Your task to perform on an android device: open sync settings in chrome Image 0: 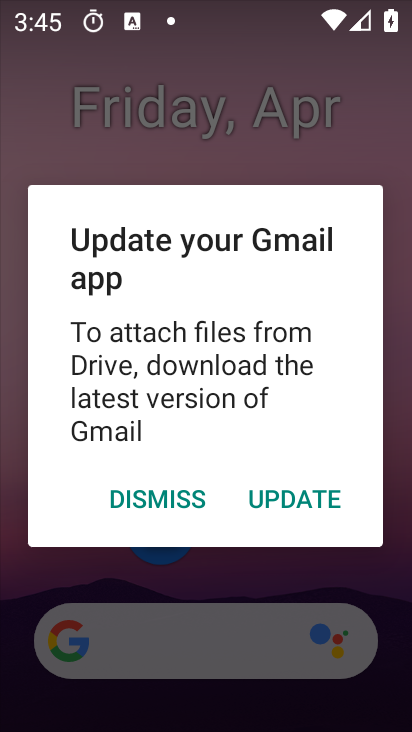
Step 0: click (171, 503)
Your task to perform on an android device: open sync settings in chrome Image 1: 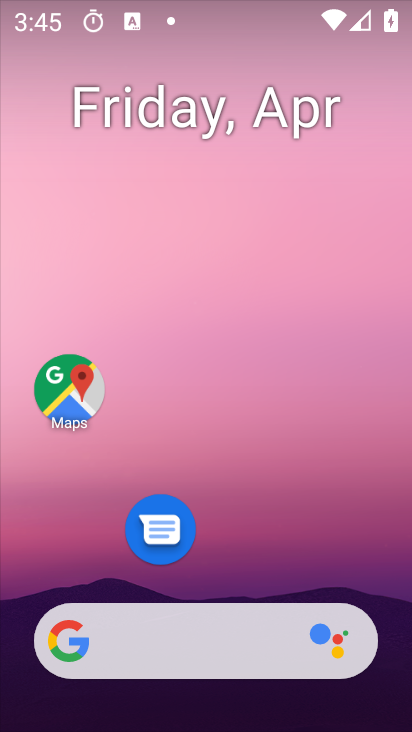
Step 1: drag from (260, 607) to (290, 219)
Your task to perform on an android device: open sync settings in chrome Image 2: 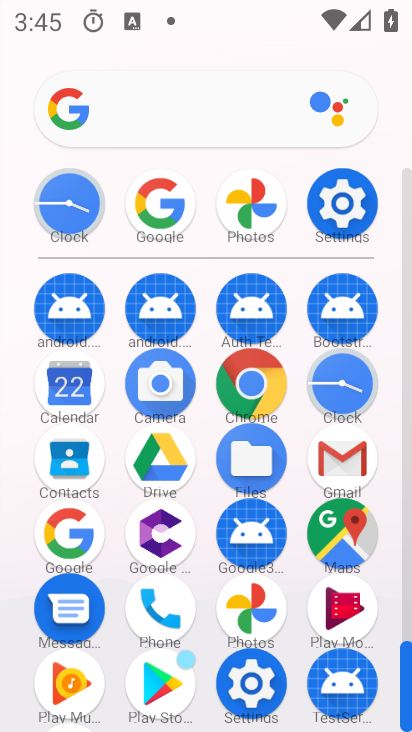
Step 2: click (343, 227)
Your task to perform on an android device: open sync settings in chrome Image 3: 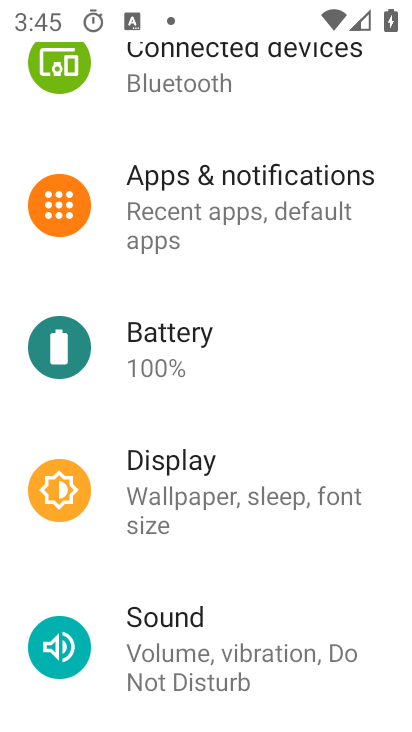
Step 3: press home button
Your task to perform on an android device: open sync settings in chrome Image 4: 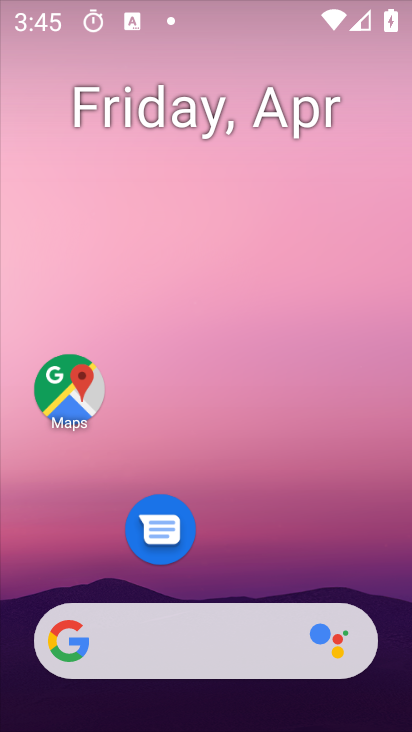
Step 4: drag from (270, 383) to (269, 144)
Your task to perform on an android device: open sync settings in chrome Image 5: 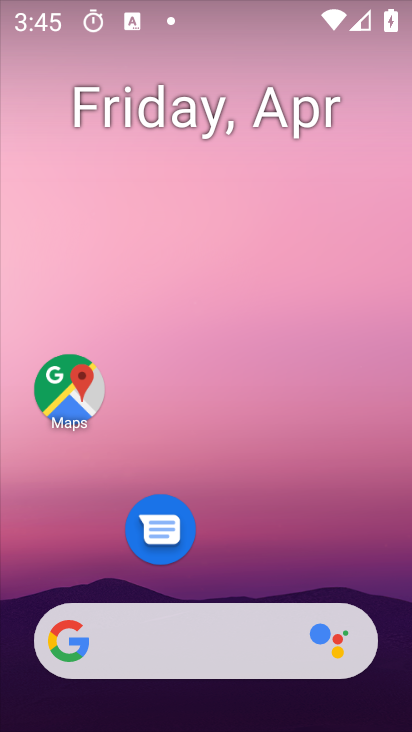
Step 5: drag from (252, 583) to (317, 132)
Your task to perform on an android device: open sync settings in chrome Image 6: 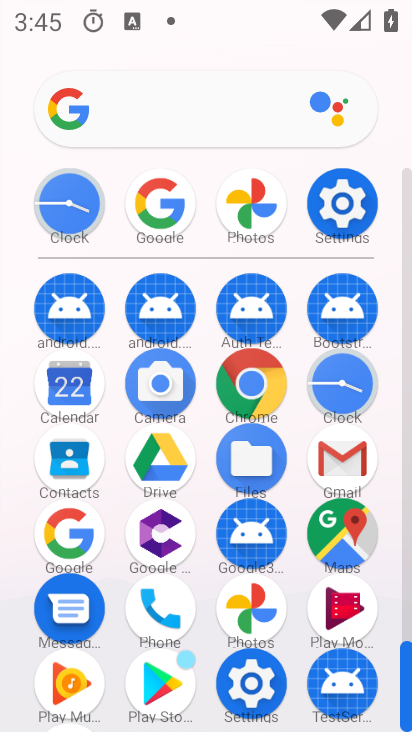
Step 6: drag from (318, 533) to (357, 243)
Your task to perform on an android device: open sync settings in chrome Image 7: 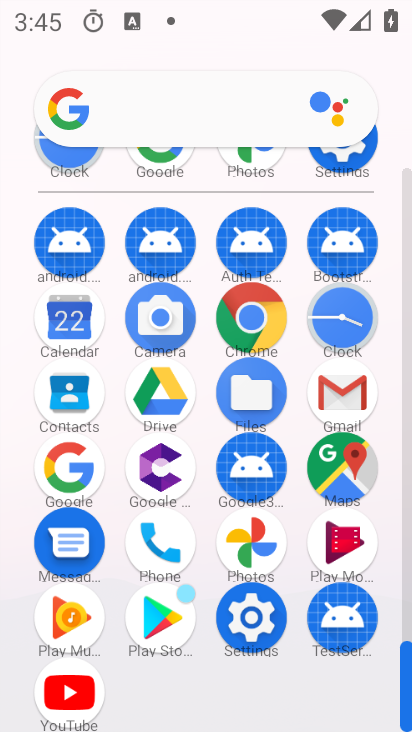
Step 7: click (267, 338)
Your task to perform on an android device: open sync settings in chrome Image 8: 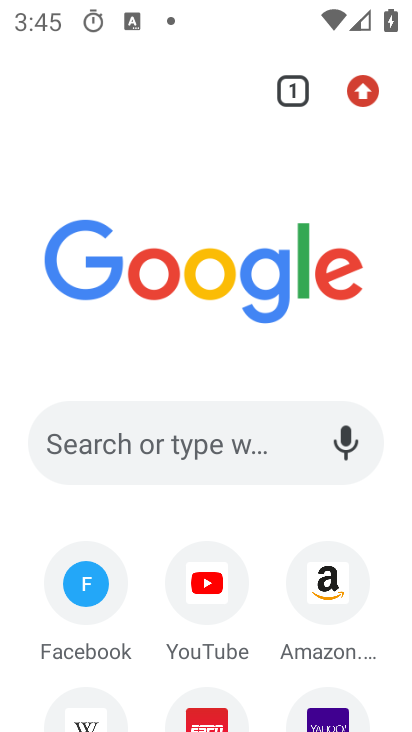
Step 8: click (365, 101)
Your task to perform on an android device: open sync settings in chrome Image 9: 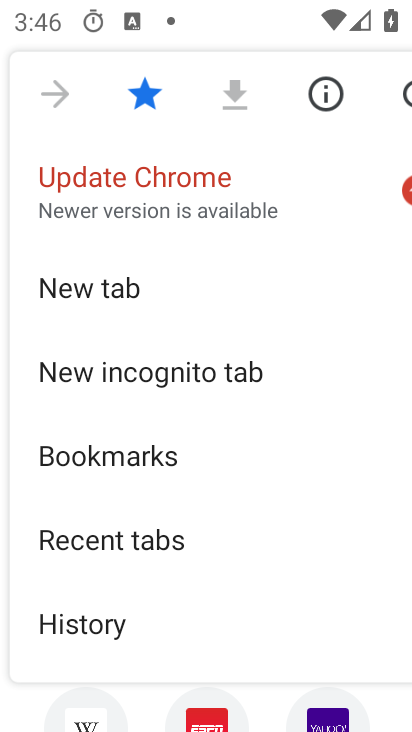
Step 9: drag from (131, 482) to (131, 399)
Your task to perform on an android device: open sync settings in chrome Image 10: 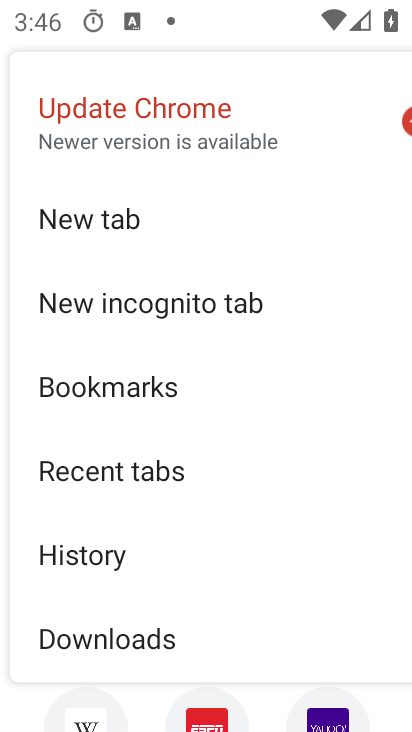
Step 10: drag from (160, 596) to (166, 419)
Your task to perform on an android device: open sync settings in chrome Image 11: 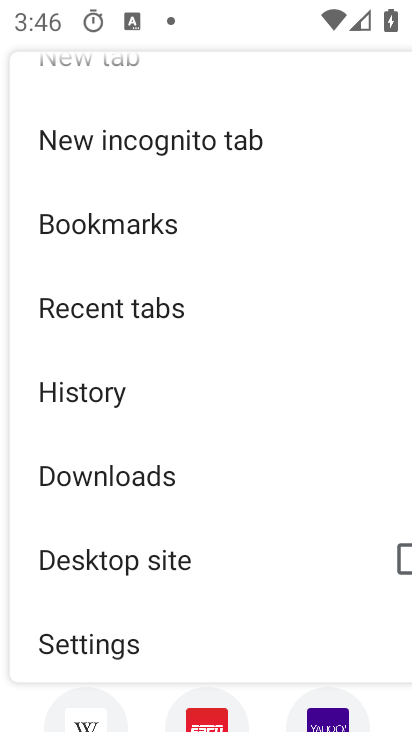
Step 11: click (119, 637)
Your task to perform on an android device: open sync settings in chrome Image 12: 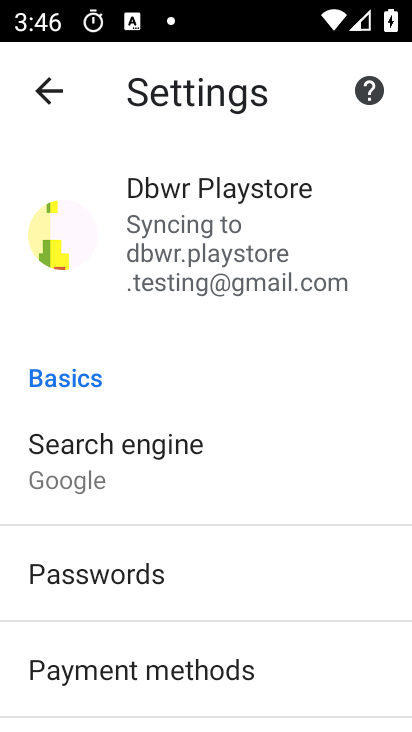
Step 12: click (219, 258)
Your task to perform on an android device: open sync settings in chrome Image 13: 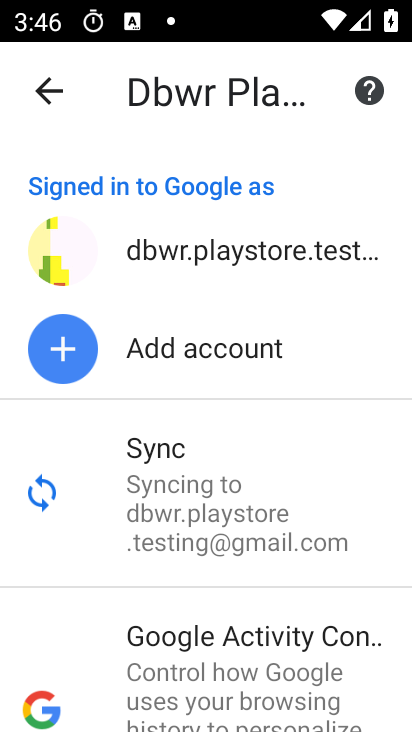
Step 13: click (187, 491)
Your task to perform on an android device: open sync settings in chrome Image 14: 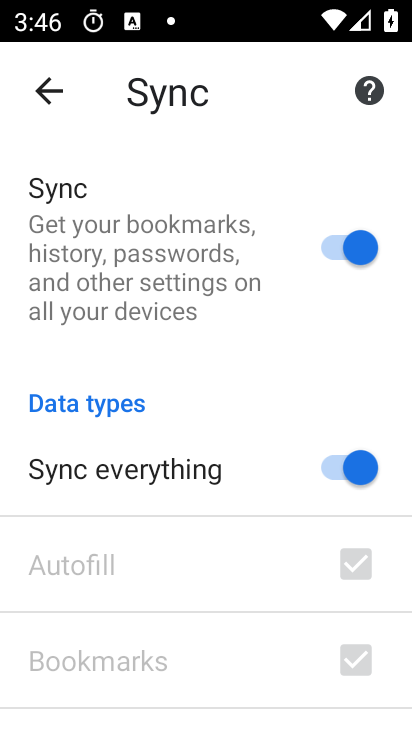
Step 14: task complete